Your task to perform on an android device: Search for a new eyeliner Image 0: 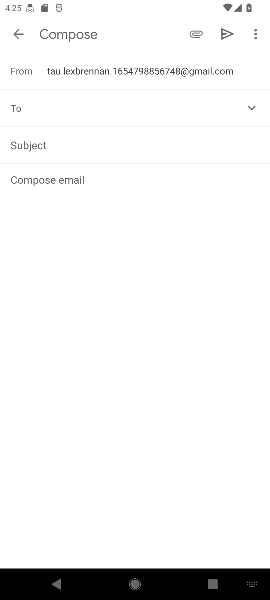
Step 0: press home button
Your task to perform on an android device: Search for a new eyeliner Image 1: 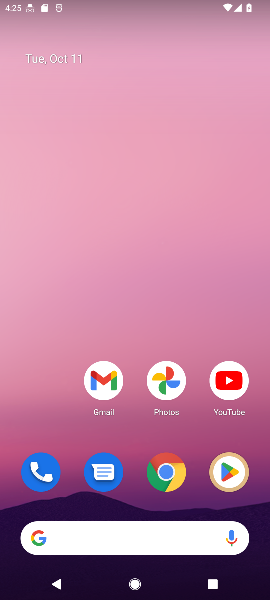
Step 1: click (162, 479)
Your task to perform on an android device: Search for a new eyeliner Image 2: 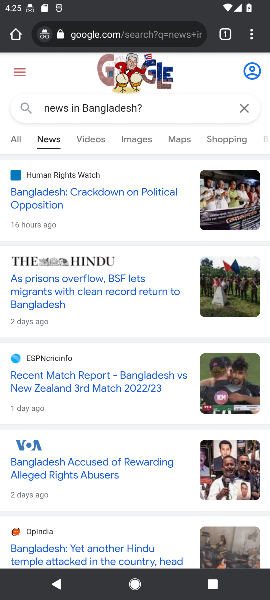
Step 2: click (122, 37)
Your task to perform on an android device: Search for a new eyeliner Image 3: 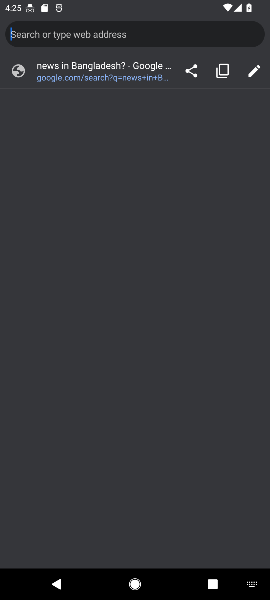
Step 3: type "new eyeliner"
Your task to perform on an android device: Search for a new eyeliner Image 4: 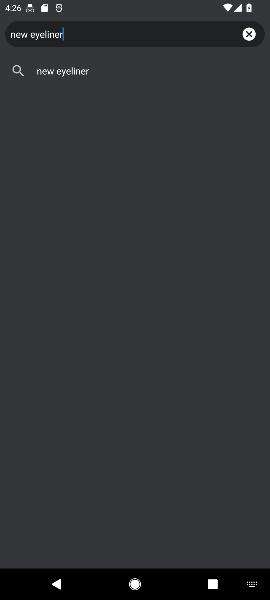
Step 4: click (31, 63)
Your task to perform on an android device: Search for a new eyeliner Image 5: 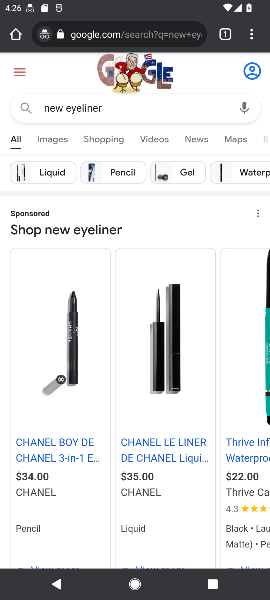
Step 5: click (95, 128)
Your task to perform on an android device: Search for a new eyeliner Image 6: 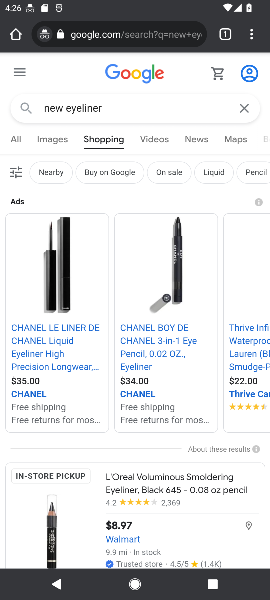
Step 6: click (31, 325)
Your task to perform on an android device: Search for a new eyeliner Image 7: 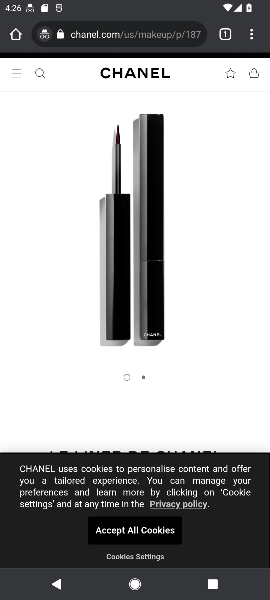
Step 7: task complete